Your task to perform on an android device: change the clock display to show seconds Image 0: 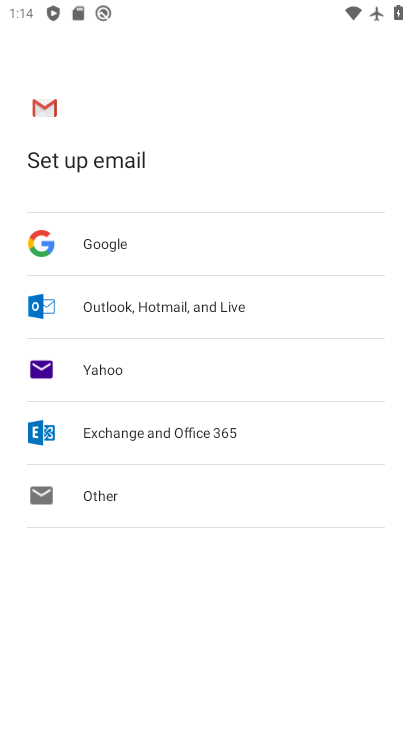
Step 0: press home button
Your task to perform on an android device: change the clock display to show seconds Image 1: 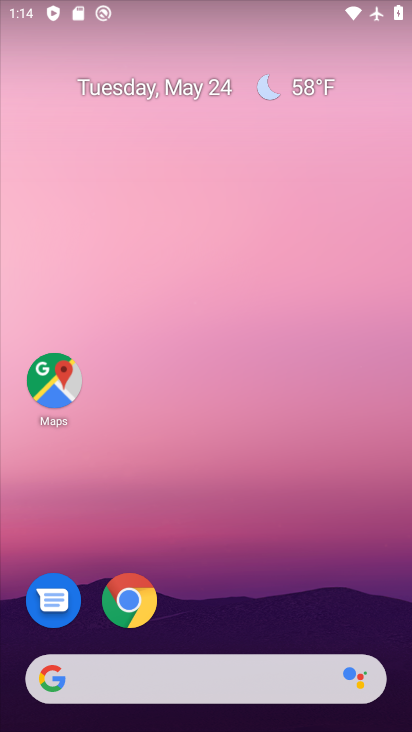
Step 1: drag from (267, 438) to (169, 11)
Your task to perform on an android device: change the clock display to show seconds Image 2: 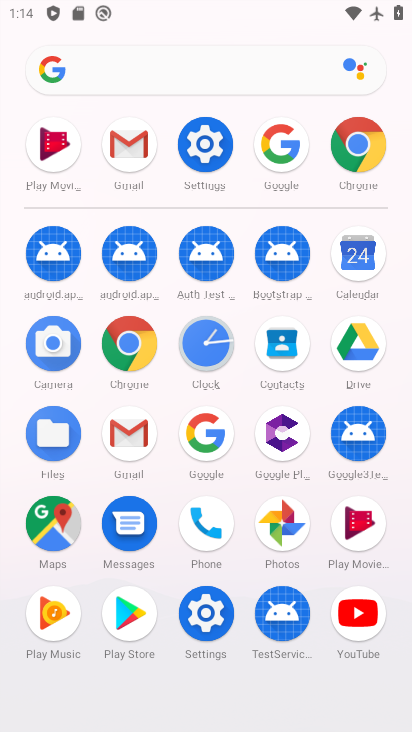
Step 2: click (202, 344)
Your task to perform on an android device: change the clock display to show seconds Image 3: 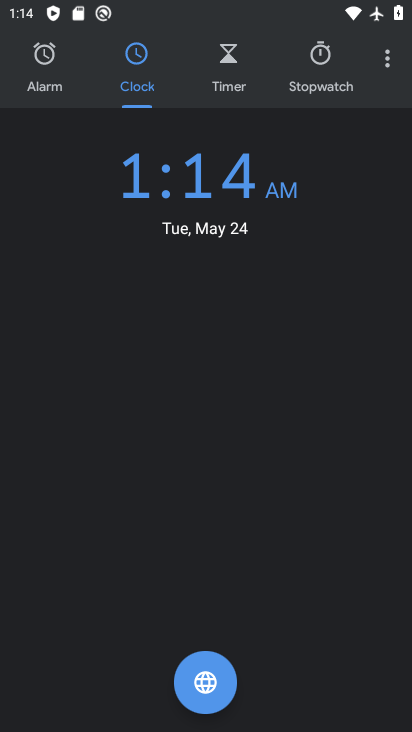
Step 3: click (387, 62)
Your task to perform on an android device: change the clock display to show seconds Image 4: 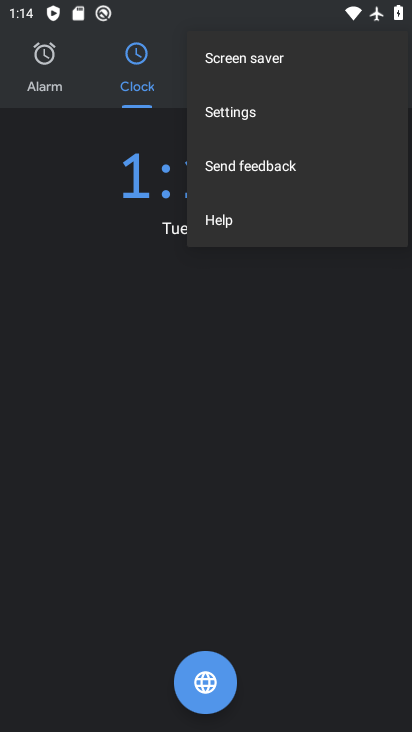
Step 4: click (259, 112)
Your task to perform on an android device: change the clock display to show seconds Image 5: 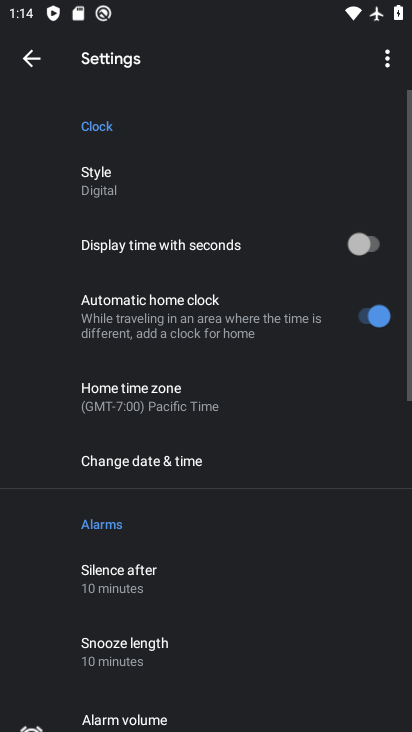
Step 5: click (358, 249)
Your task to perform on an android device: change the clock display to show seconds Image 6: 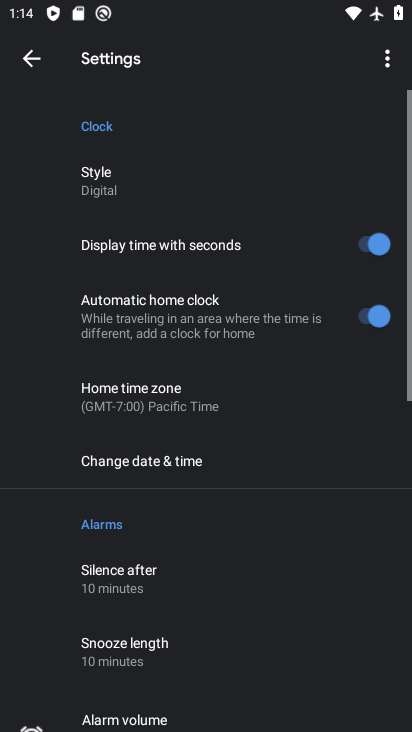
Step 6: task complete